Your task to perform on an android device: How much does a 2x4x8 board cost at Lowes? Image 0: 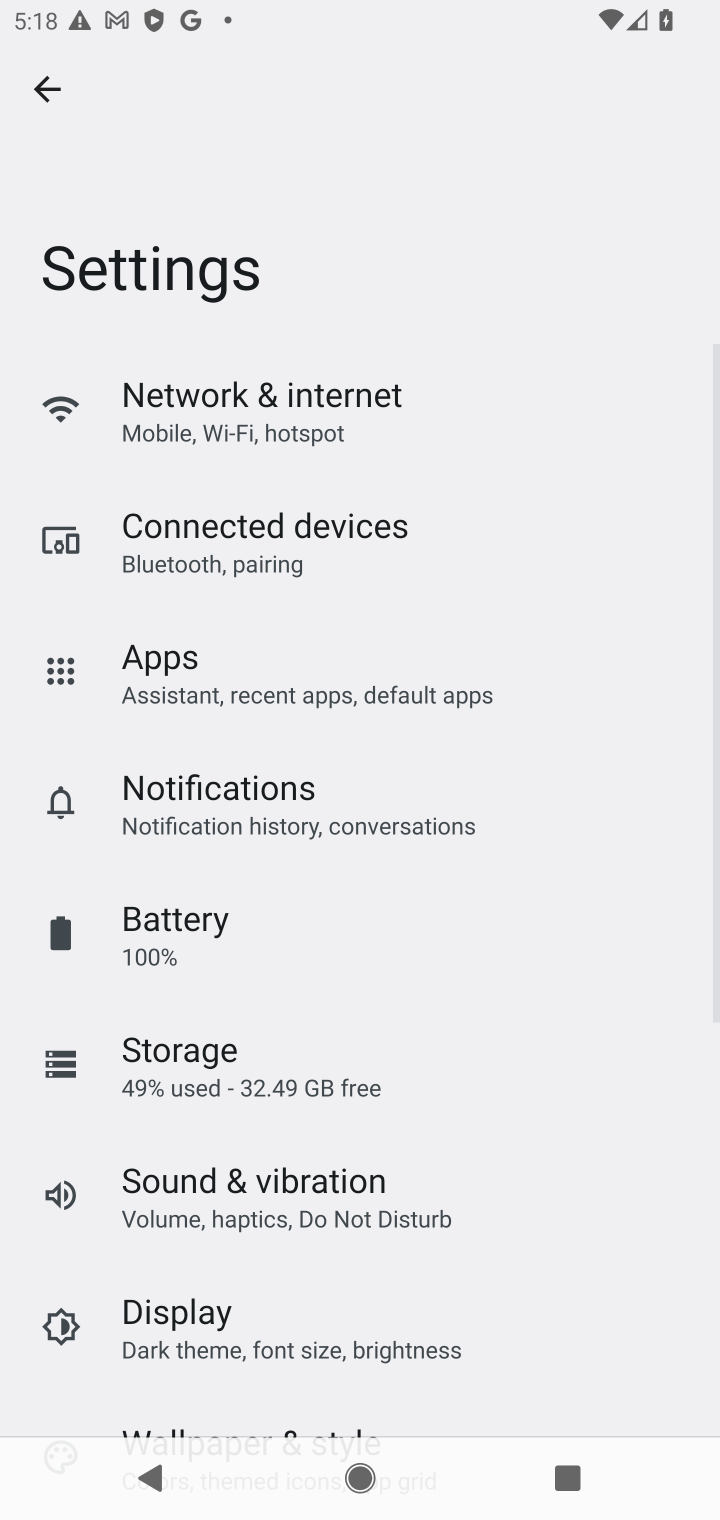
Step 0: press home button
Your task to perform on an android device: How much does a 2x4x8 board cost at Lowes? Image 1: 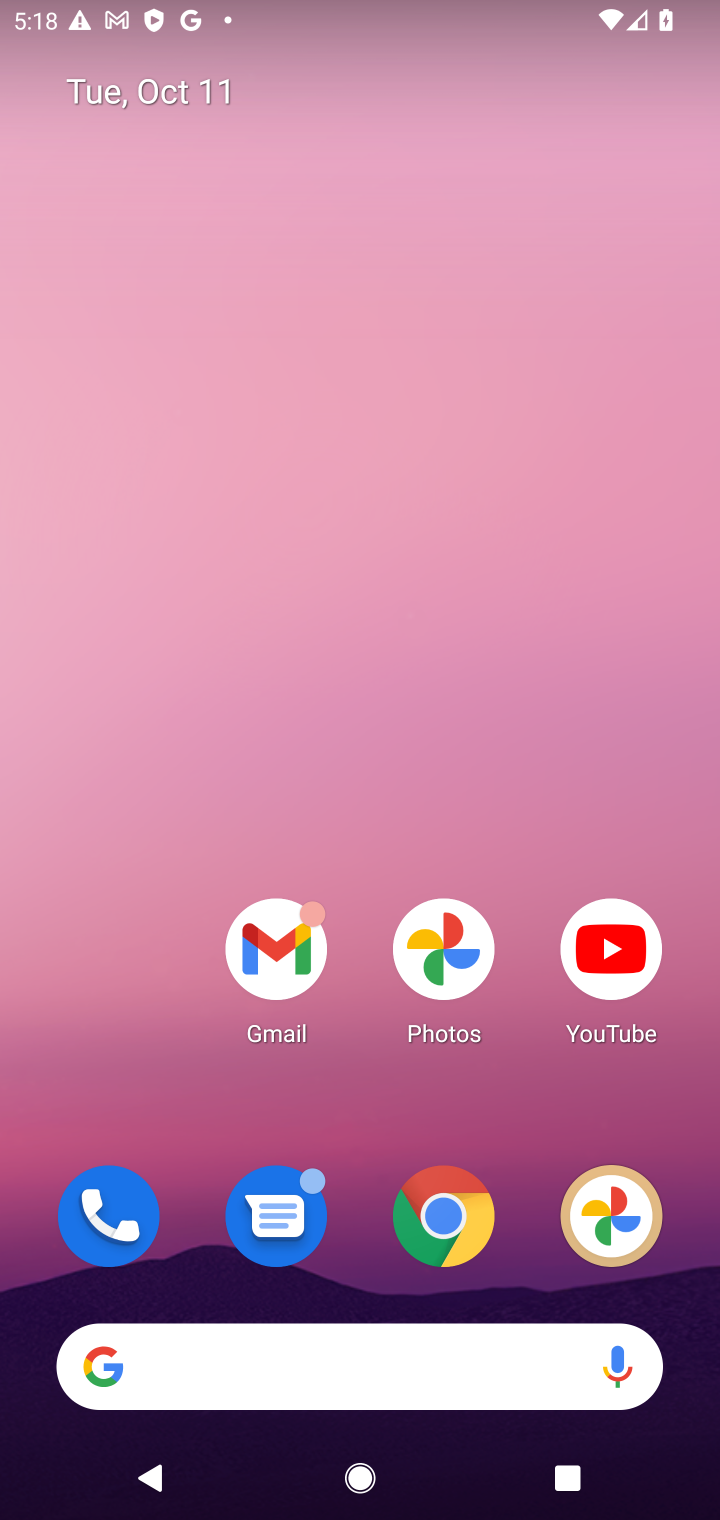
Step 1: click (450, 1193)
Your task to perform on an android device: How much does a 2x4x8 board cost at Lowes? Image 2: 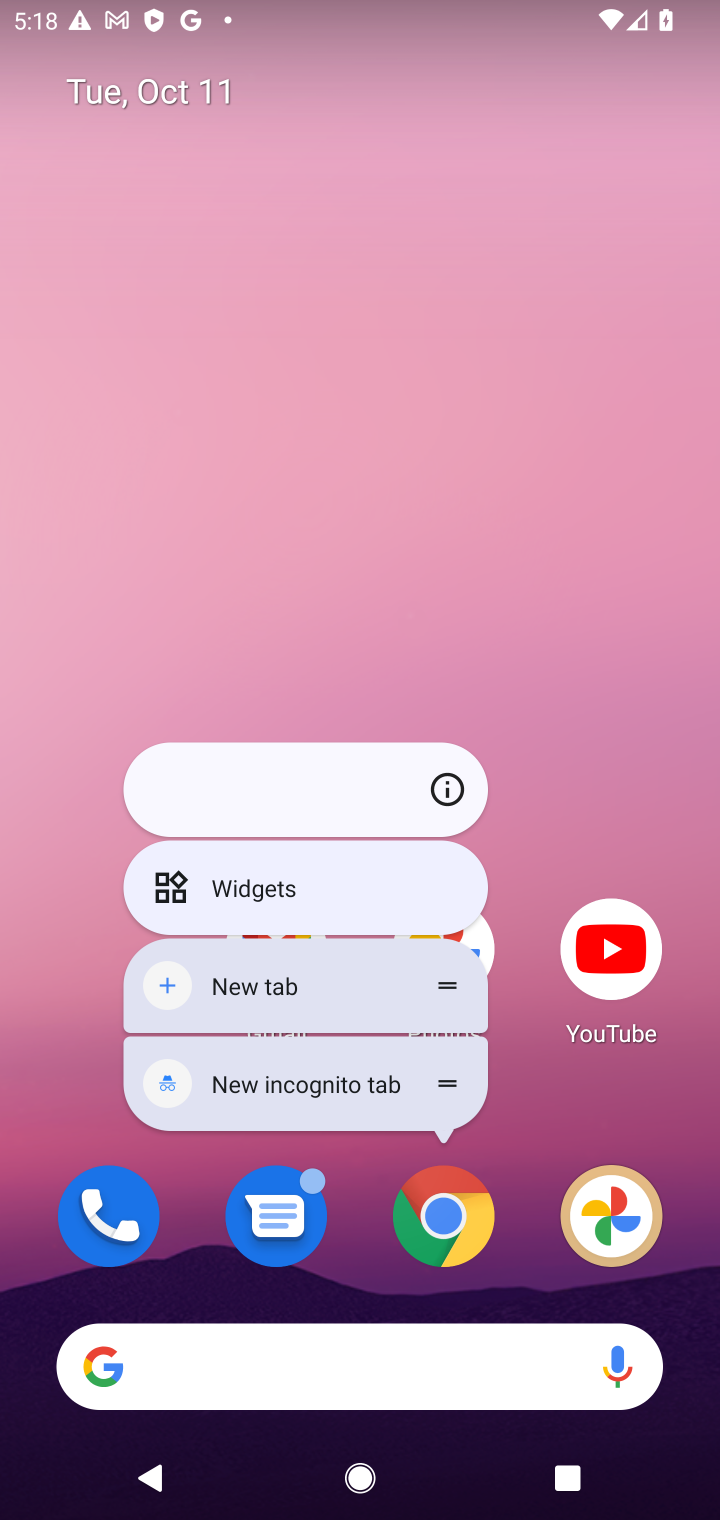
Step 2: click (452, 1227)
Your task to perform on an android device: How much does a 2x4x8 board cost at Lowes? Image 3: 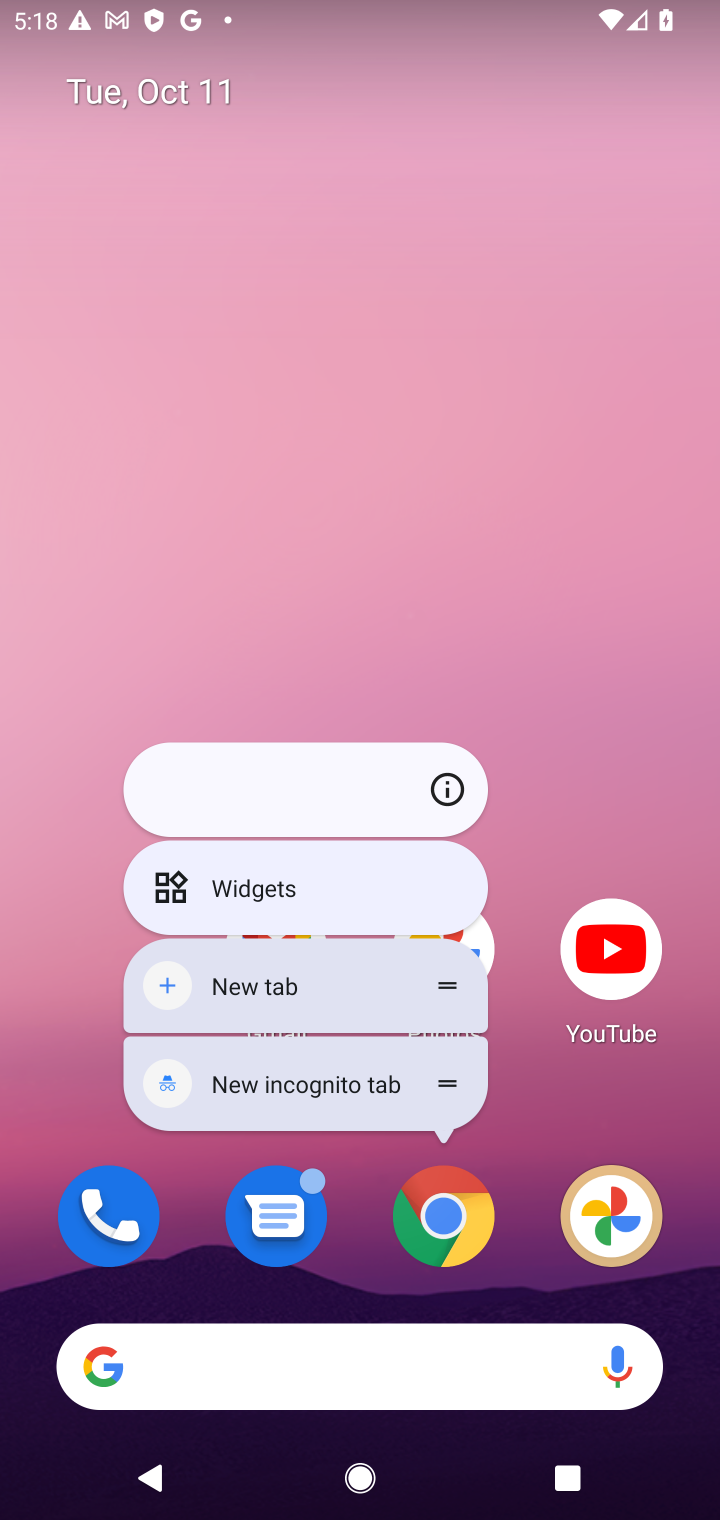
Step 3: click (452, 1227)
Your task to perform on an android device: How much does a 2x4x8 board cost at Lowes? Image 4: 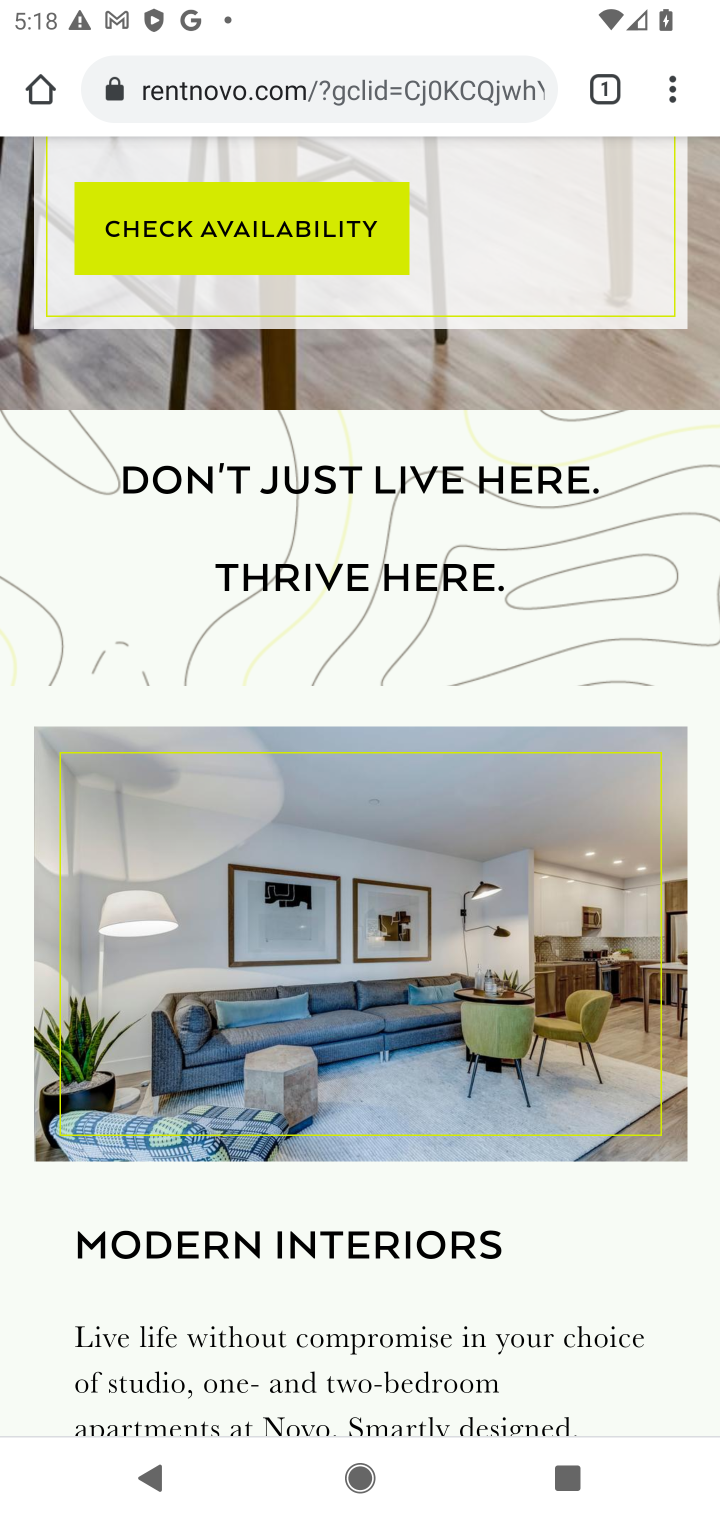
Step 4: click (390, 80)
Your task to perform on an android device: How much does a 2x4x8 board cost at Lowes? Image 5: 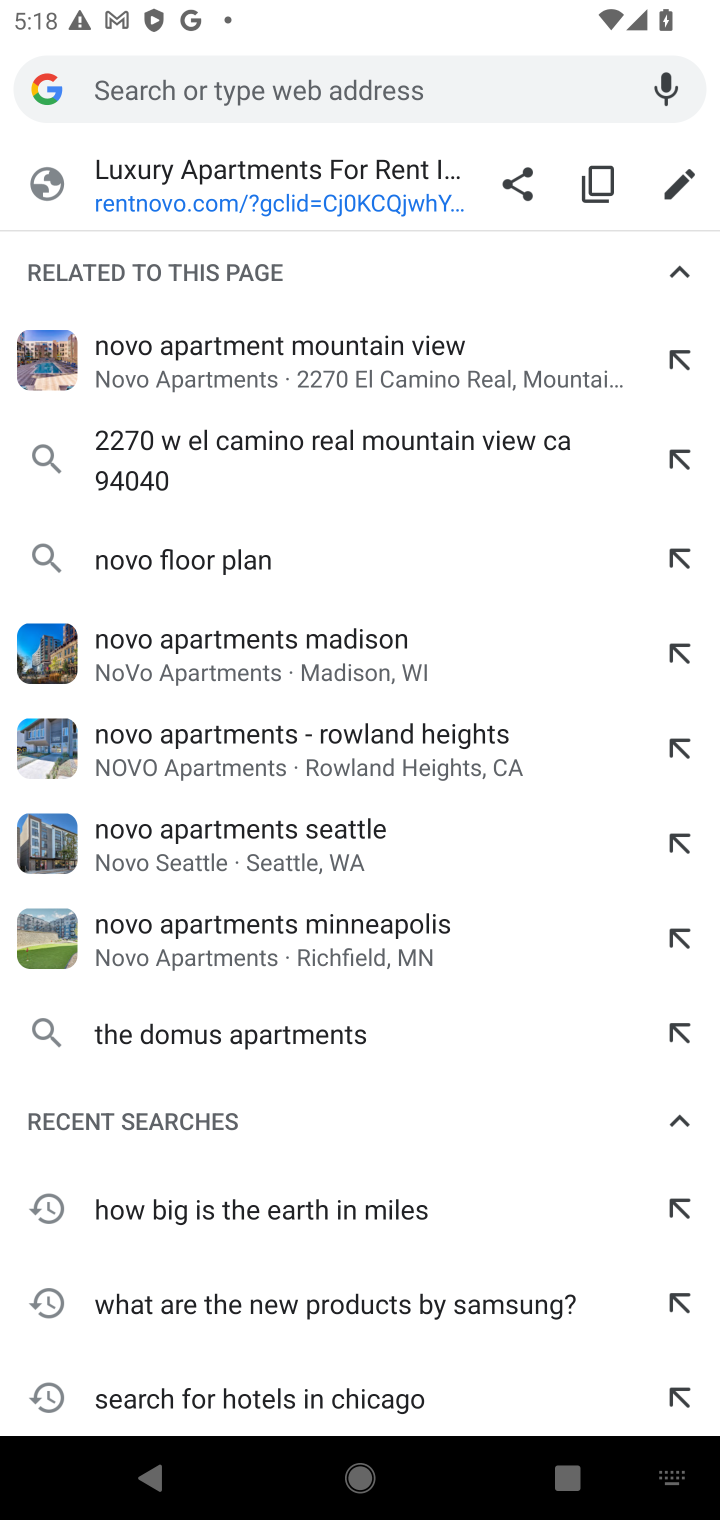
Step 5: type "How much does a 2x4x8 board cost at Lowes?"
Your task to perform on an android device: How much does a 2x4x8 board cost at Lowes? Image 6: 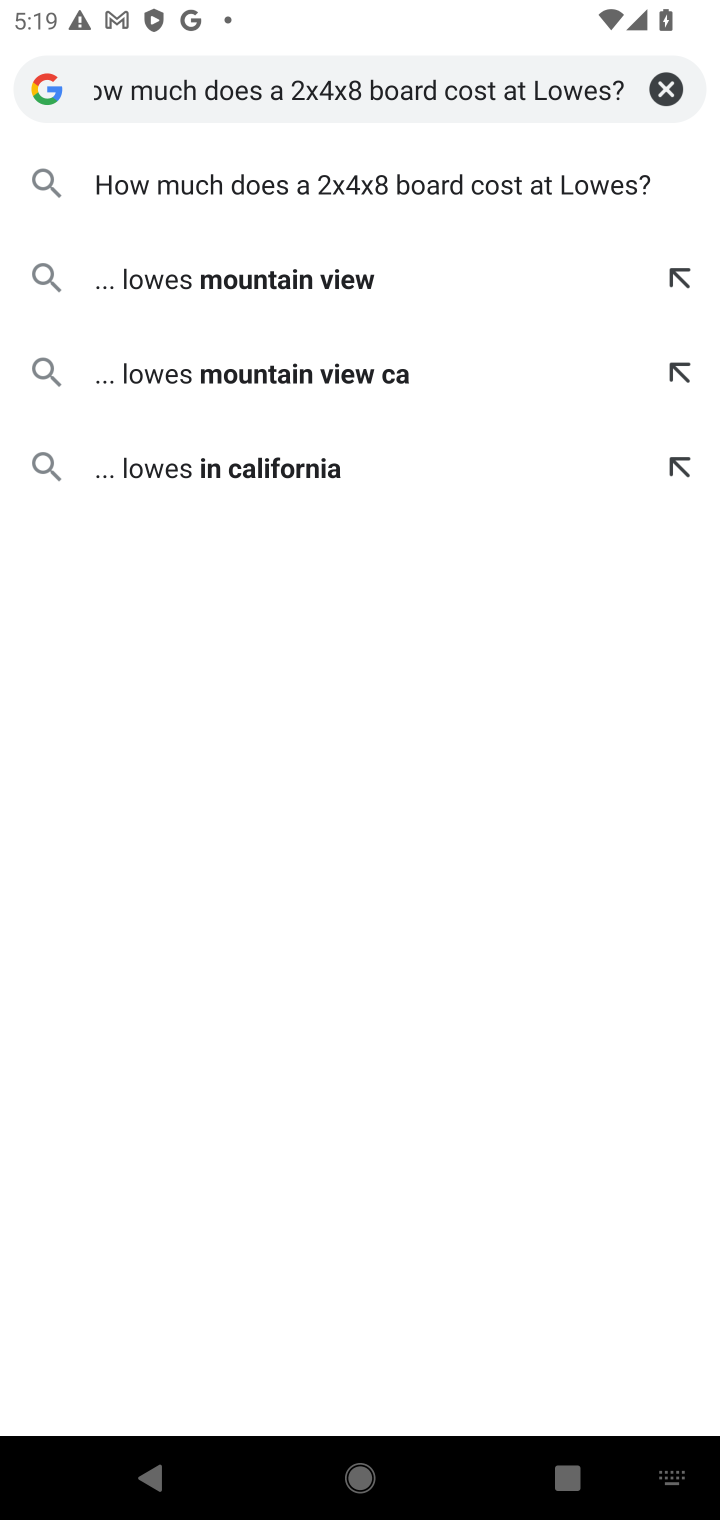
Step 6: press enter
Your task to perform on an android device: How much does a 2x4x8 board cost at Lowes? Image 7: 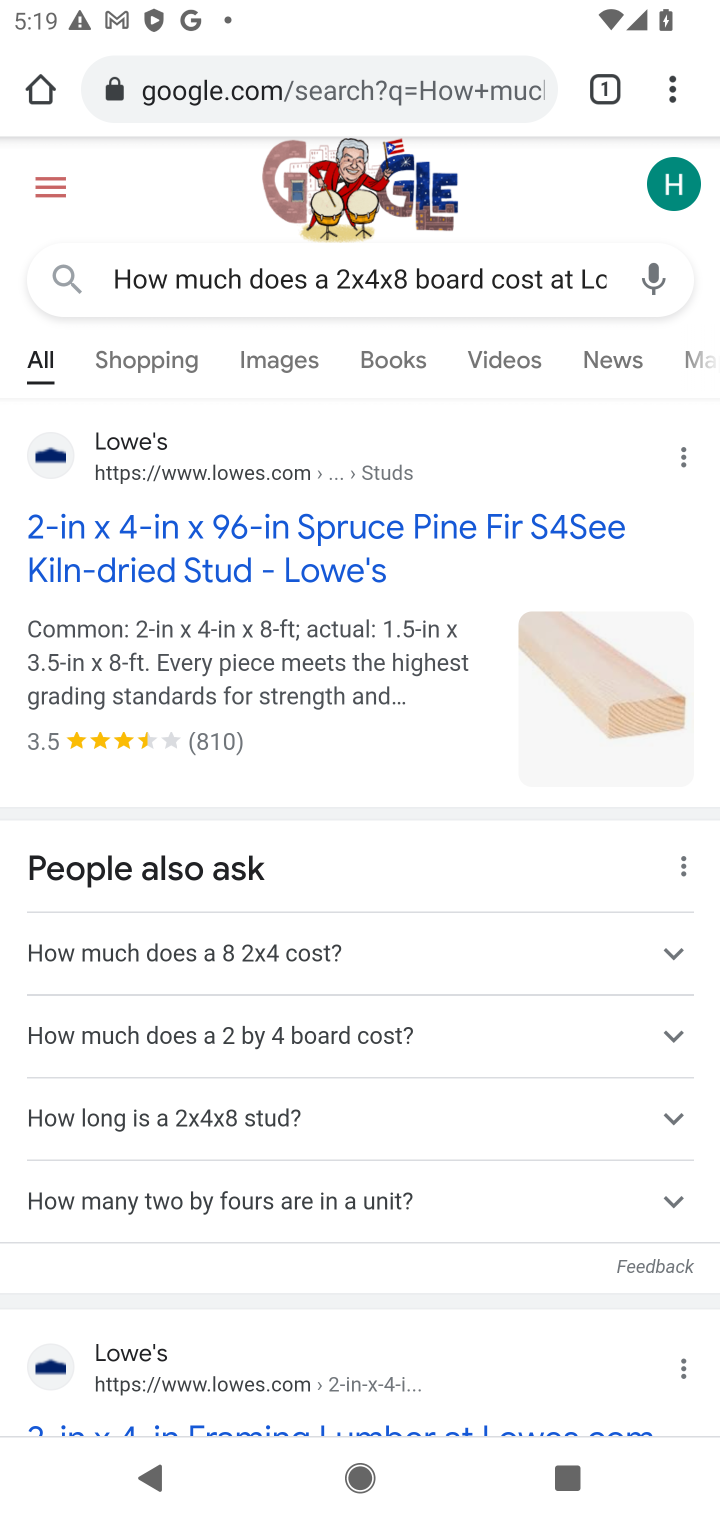
Step 7: click (447, 554)
Your task to perform on an android device: How much does a 2x4x8 board cost at Lowes? Image 8: 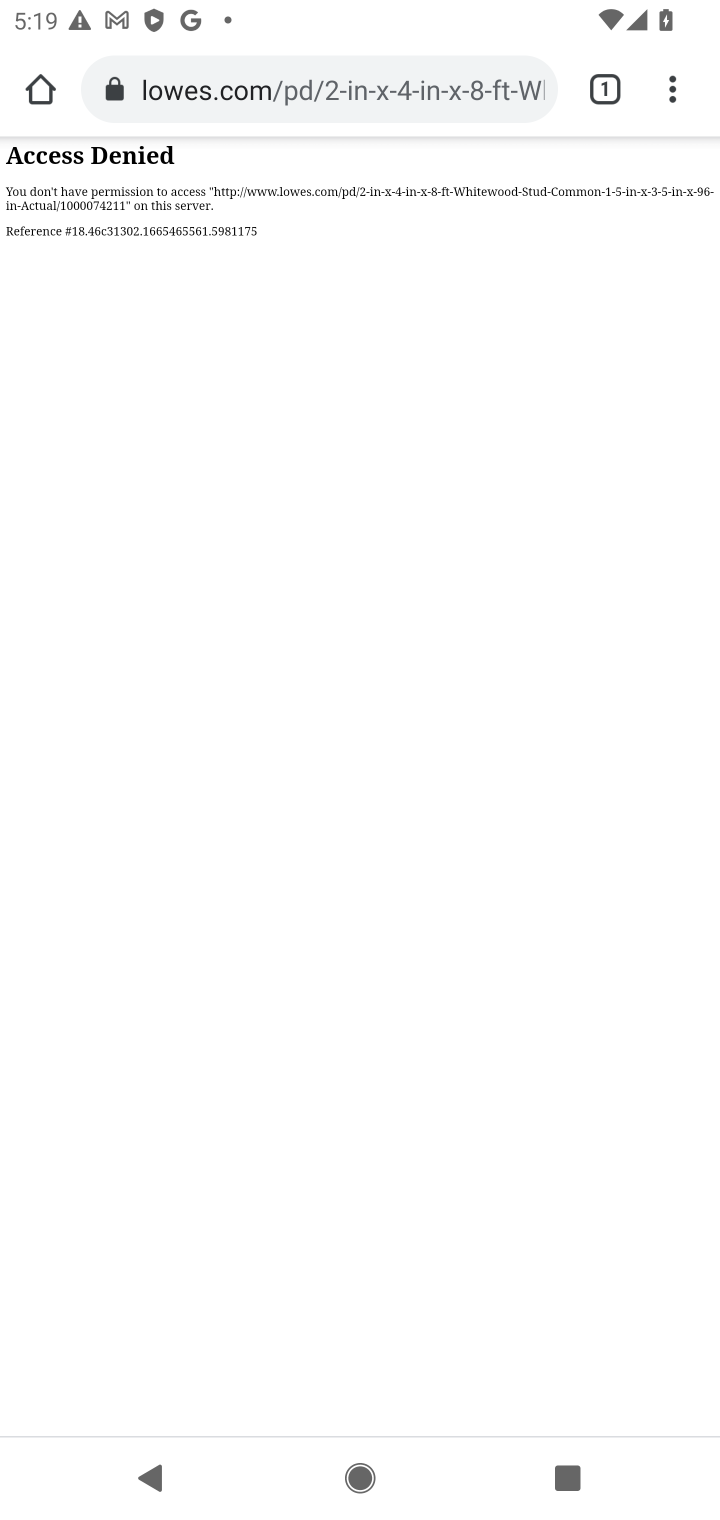
Step 8: task complete